Your task to perform on an android device: see creations saved in the google photos Image 0: 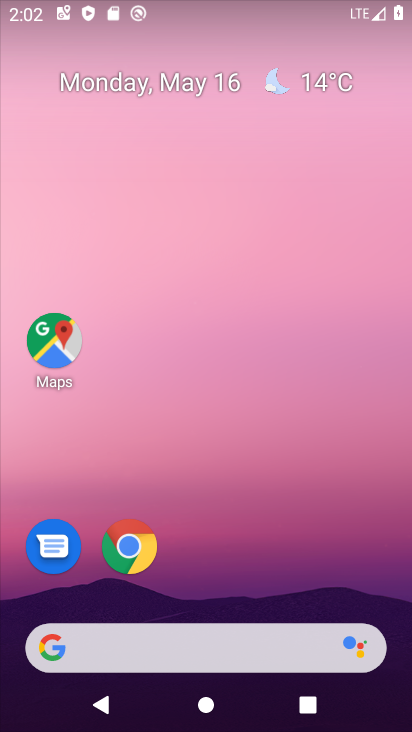
Step 0: drag from (270, 363) to (236, 274)
Your task to perform on an android device: see creations saved in the google photos Image 1: 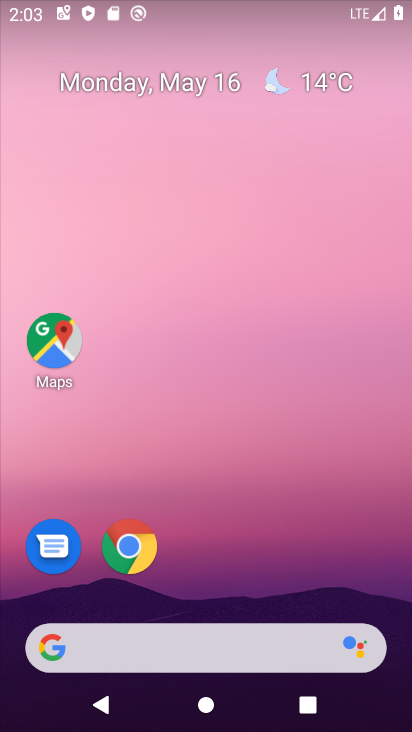
Step 1: drag from (263, 684) to (169, 123)
Your task to perform on an android device: see creations saved in the google photos Image 2: 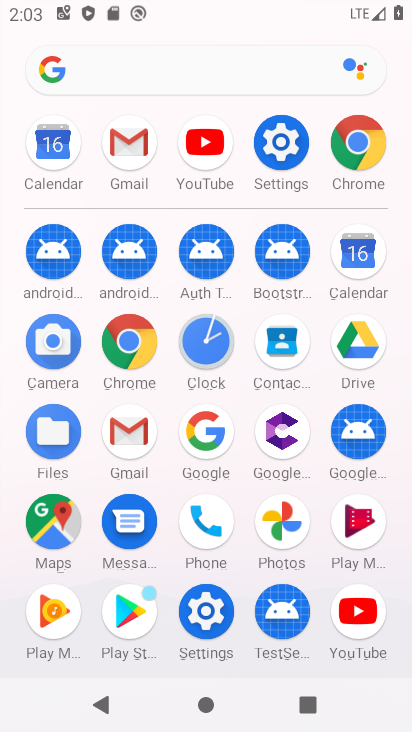
Step 2: click (285, 512)
Your task to perform on an android device: see creations saved in the google photos Image 3: 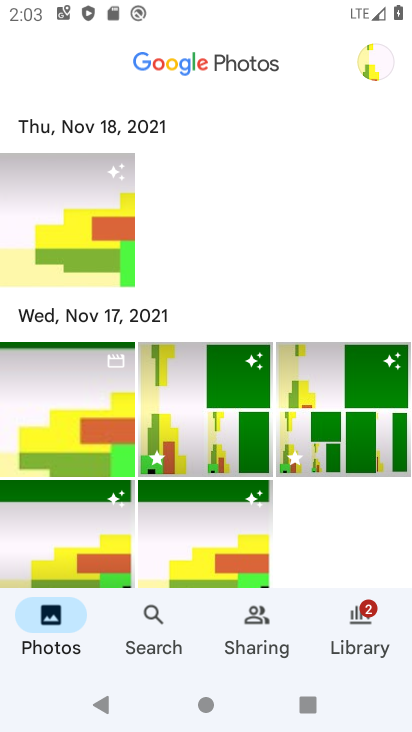
Step 3: click (213, 400)
Your task to perform on an android device: see creations saved in the google photos Image 4: 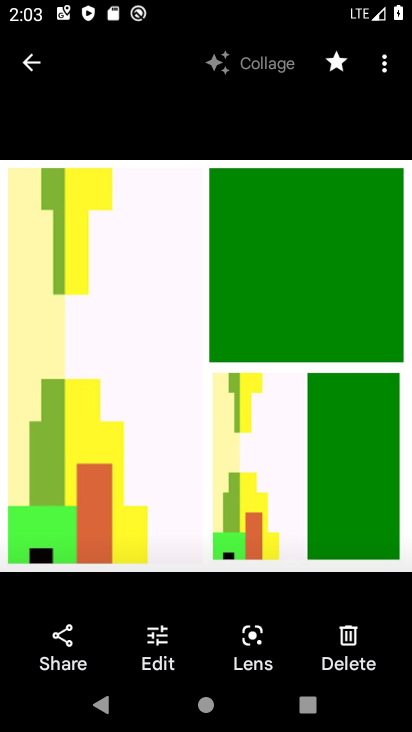
Step 4: click (377, 84)
Your task to perform on an android device: see creations saved in the google photos Image 5: 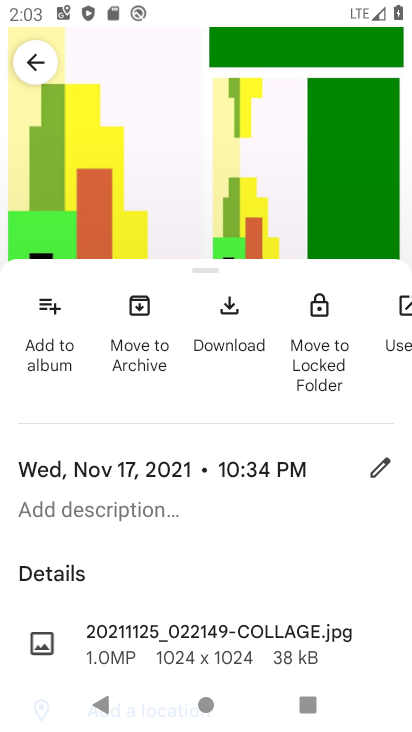
Step 5: task complete